Your task to perform on an android device: Turn on the flashlight Image 0: 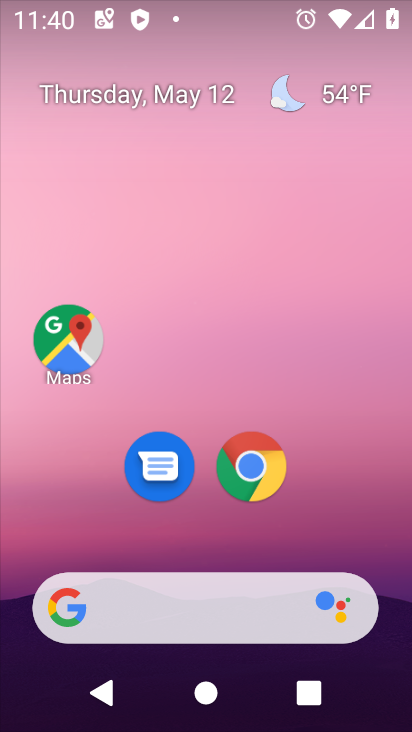
Step 0: drag from (381, 530) to (383, 93)
Your task to perform on an android device: Turn on the flashlight Image 1: 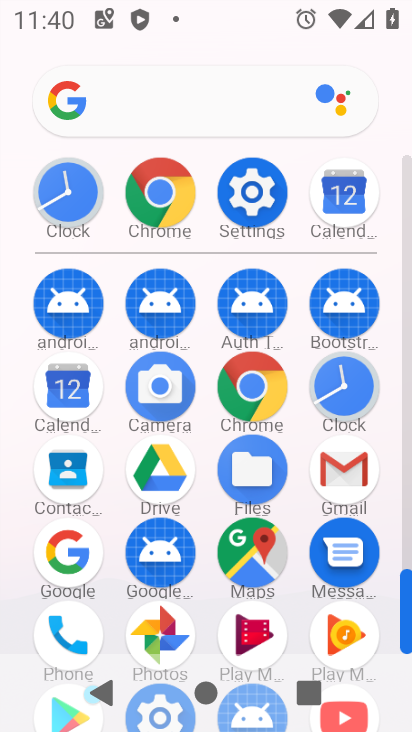
Step 1: click (252, 199)
Your task to perform on an android device: Turn on the flashlight Image 2: 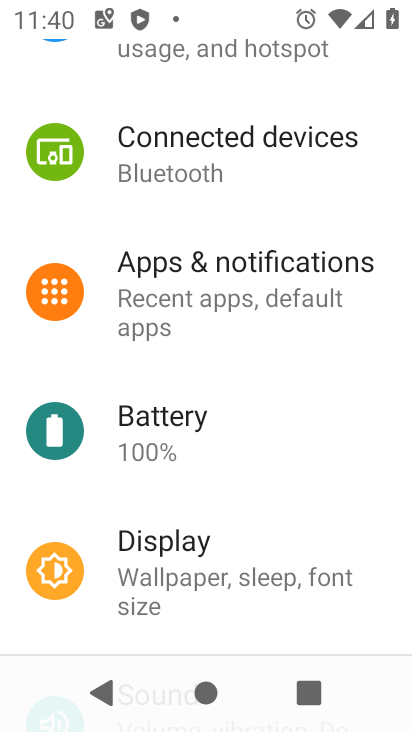
Step 2: drag from (251, 163) to (265, 395)
Your task to perform on an android device: Turn on the flashlight Image 3: 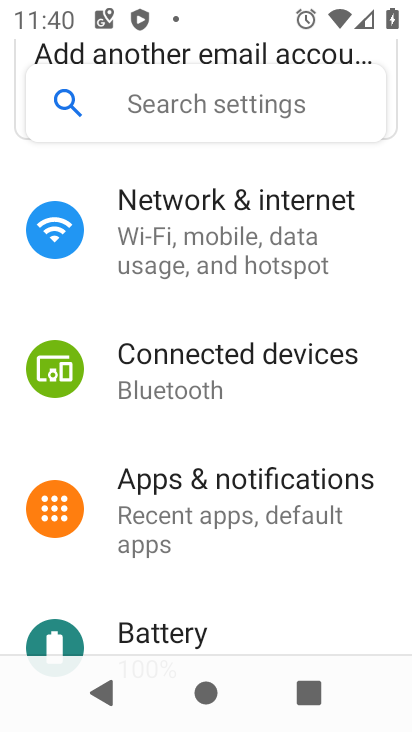
Step 3: click (236, 114)
Your task to perform on an android device: Turn on the flashlight Image 4: 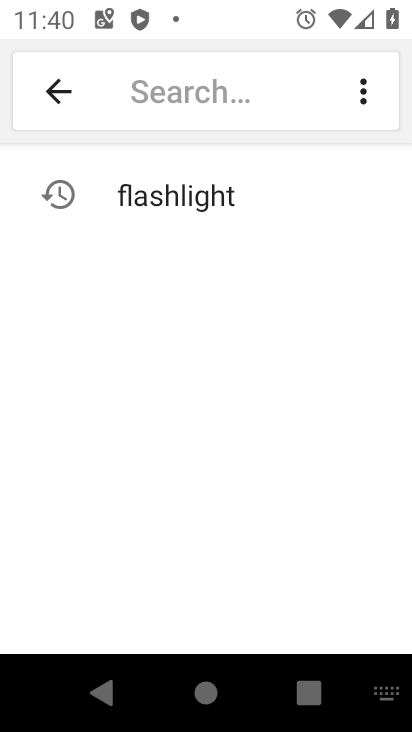
Step 4: type "flash"
Your task to perform on an android device: Turn on the flashlight Image 5: 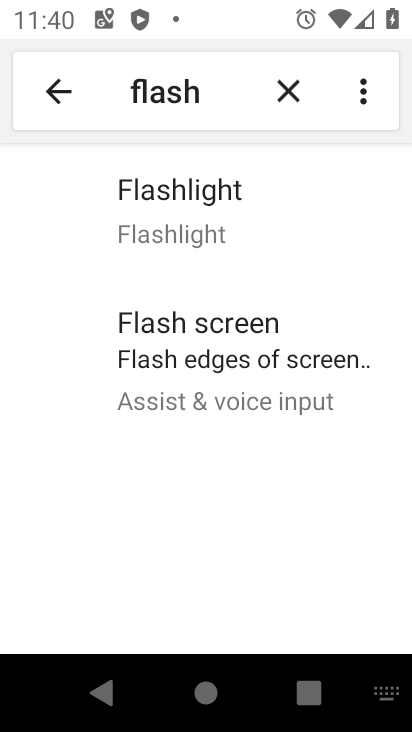
Step 5: click (219, 244)
Your task to perform on an android device: Turn on the flashlight Image 6: 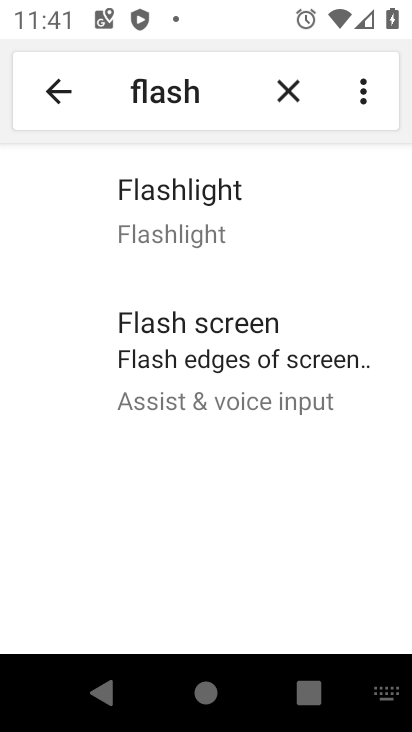
Step 6: task complete